Your task to perform on an android device: Search for Mexican restaurants on Maps Image 0: 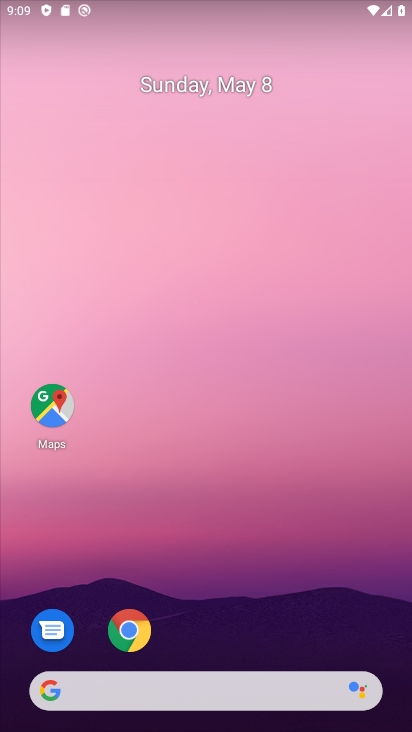
Step 0: click (54, 411)
Your task to perform on an android device: Search for Mexican restaurants on Maps Image 1: 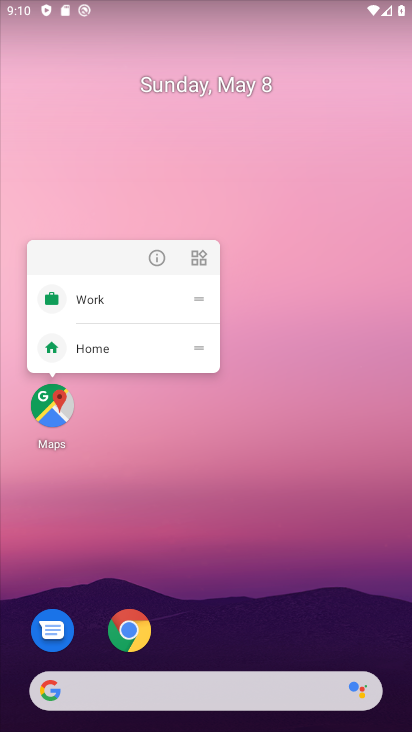
Step 1: click (45, 412)
Your task to perform on an android device: Search for Mexican restaurants on Maps Image 2: 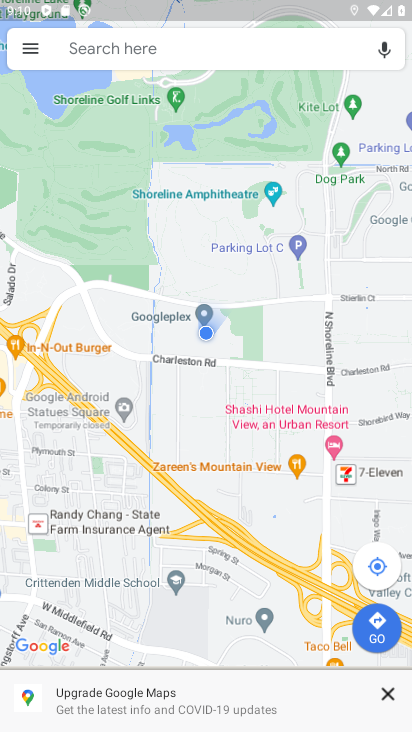
Step 2: click (158, 52)
Your task to perform on an android device: Search for Mexican restaurants on Maps Image 3: 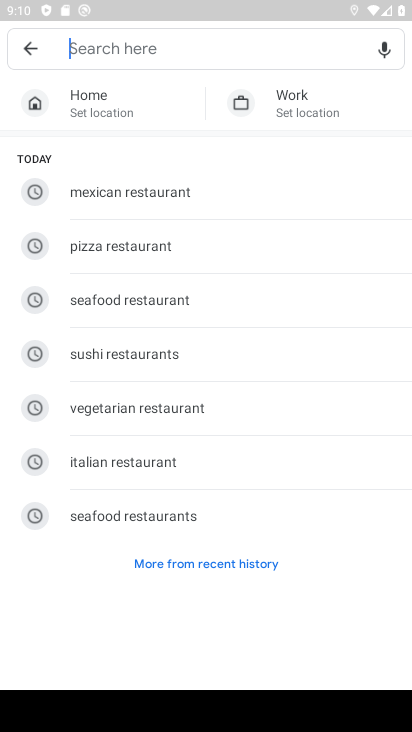
Step 3: click (162, 188)
Your task to perform on an android device: Search for Mexican restaurants on Maps Image 4: 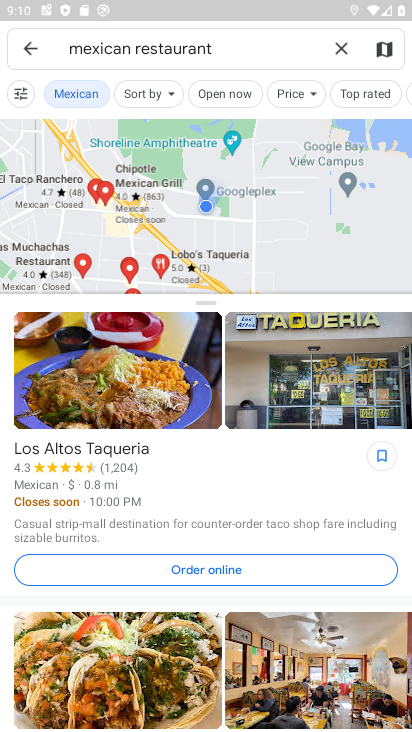
Step 4: task complete